Your task to perform on an android device: change your default location settings in chrome Image 0: 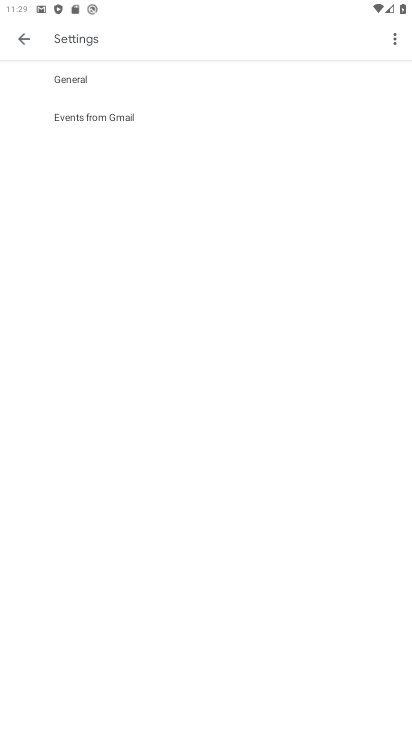
Step 0: press home button
Your task to perform on an android device: change your default location settings in chrome Image 1: 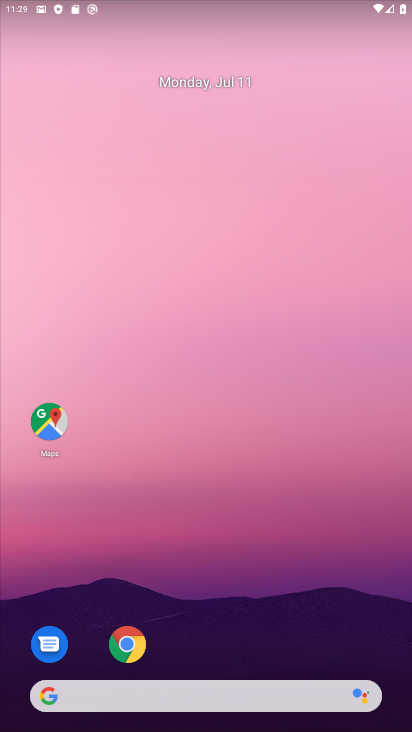
Step 1: drag from (190, 682) to (178, 6)
Your task to perform on an android device: change your default location settings in chrome Image 2: 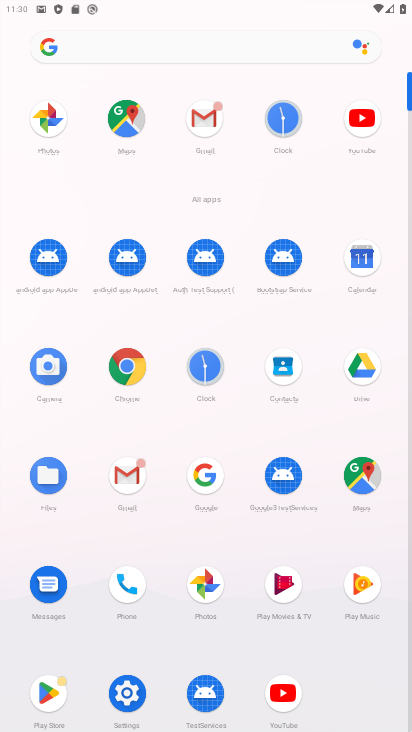
Step 2: click (139, 685)
Your task to perform on an android device: change your default location settings in chrome Image 3: 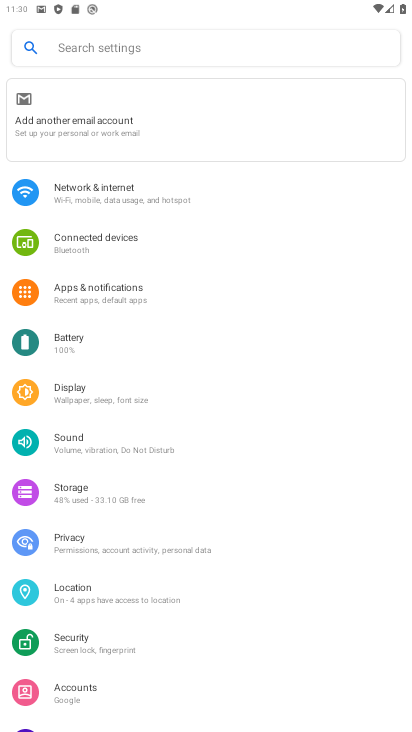
Step 3: press home button
Your task to perform on an android device: change your default location settings in chrome Image 4: 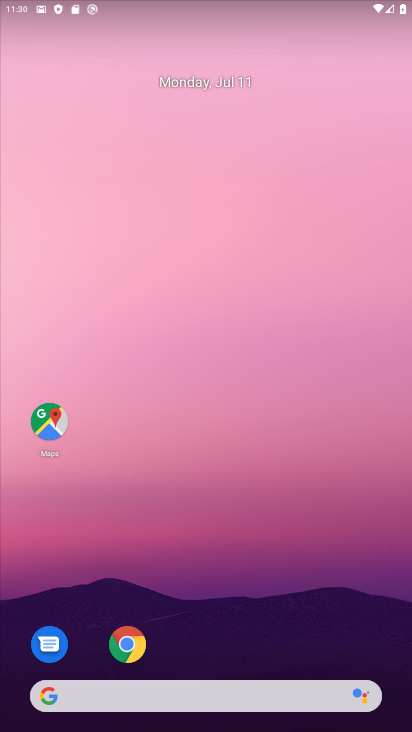
Step 4: click (132, 659)
Your task to perform on an android device: change your default location settings in chrome Image 5: 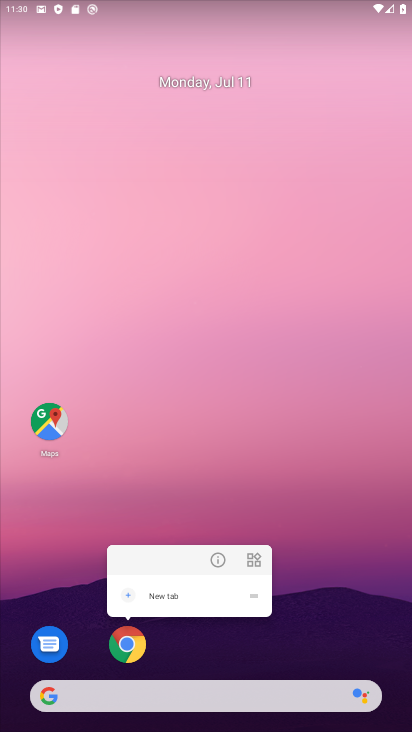
Step 5: click (248, 634)
Your task to perform on an android device: change your default location settings in chrome Image 6: 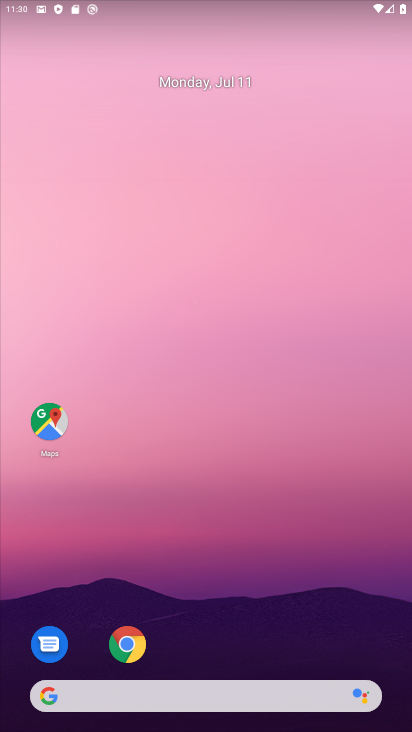
Step 6: click (133, 644)
Your task to perform on an android device: change your default location settings in chrome Image 7: 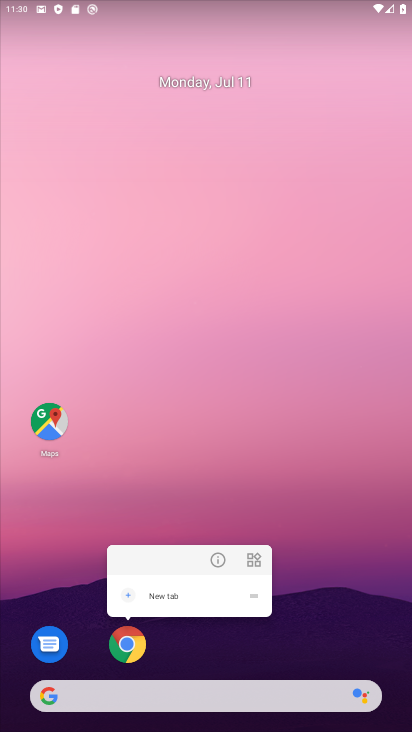
Step 7: click (113, 658)
Your task to perform on an android device: change your default location settings in chrome Image 8: 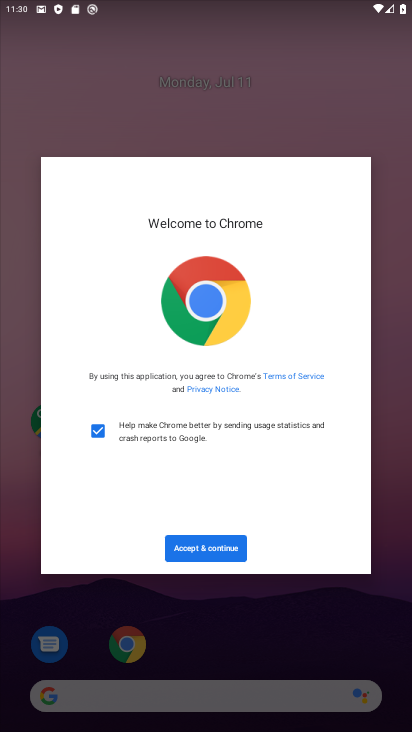
Step 8: click (220, 544)
Your task to perform on an android device: change your default location settings in chrome Image 9: 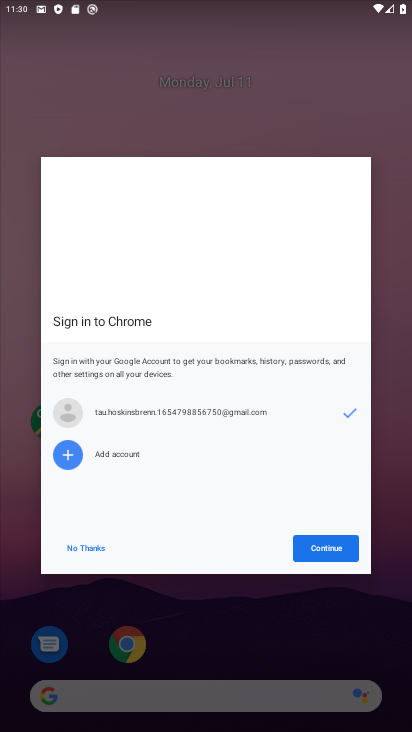
Step 9: click (323, 554)
Your task to perform on an android device: change your default location settings in chrome Image 10: 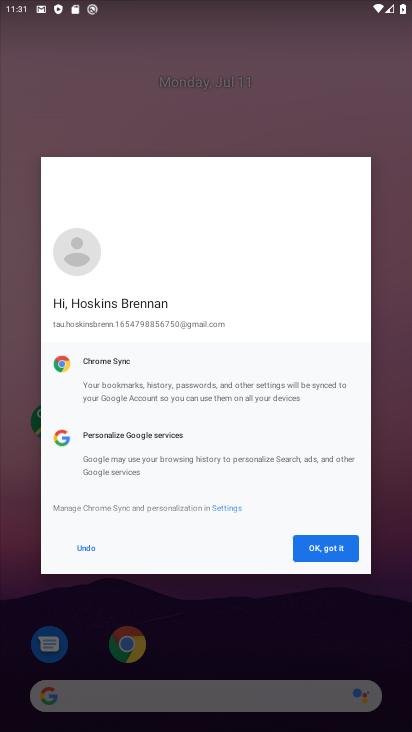
Step 10: click (325, 553)
Your task to perform on an android device: change your default location settings in chrome Image 11: 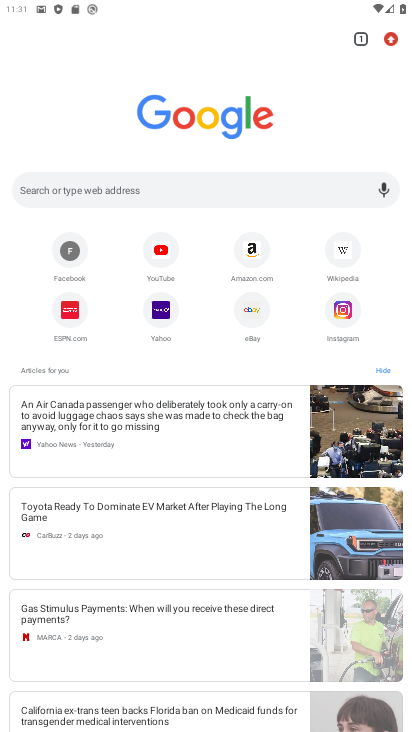
Step 11: click (389, 31)
Your task to perform on an android device: change your default location settings in chrome Image 12: 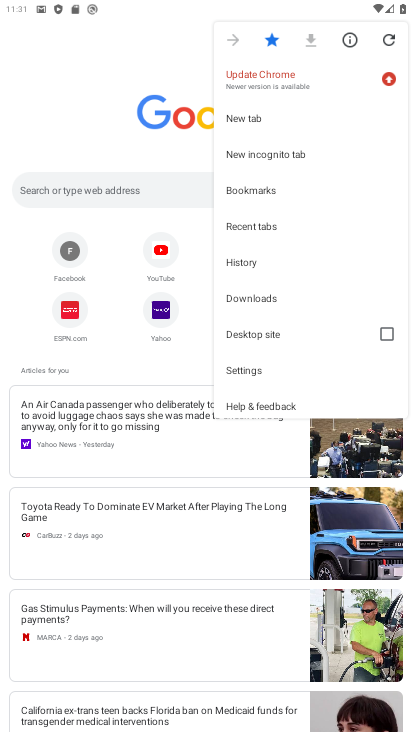
Step 12: click (242, 369)
Your task to perform on an android device: change your default location settings in chrome Image 13: 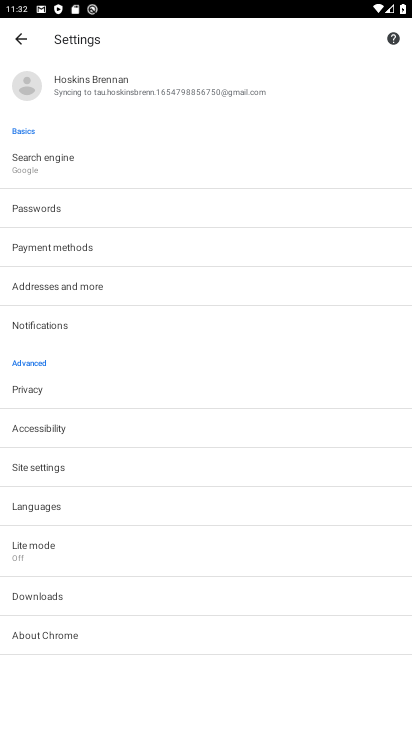
Step 13: click (55, 474)
Your task to perform on an android device: change your default location settings in chrome Image 14: 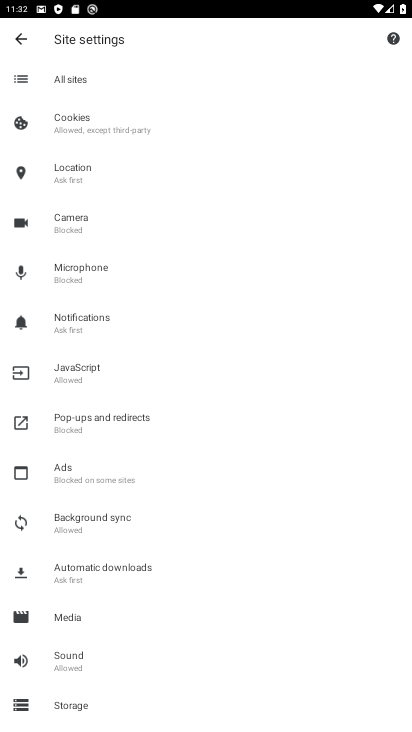
Step 14: click (63, 185)
Your task to perform on an android device: change your default location settings in chrome Image 15: 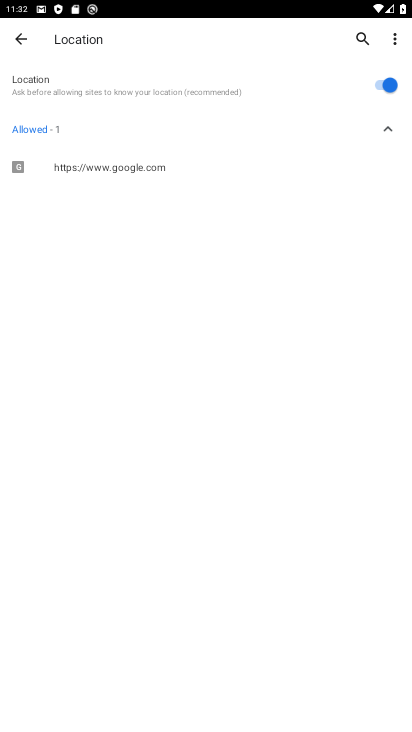
Step 15: click (377, 84)
Your task to perform on an android device: change your default location settings in chrome Image 16: 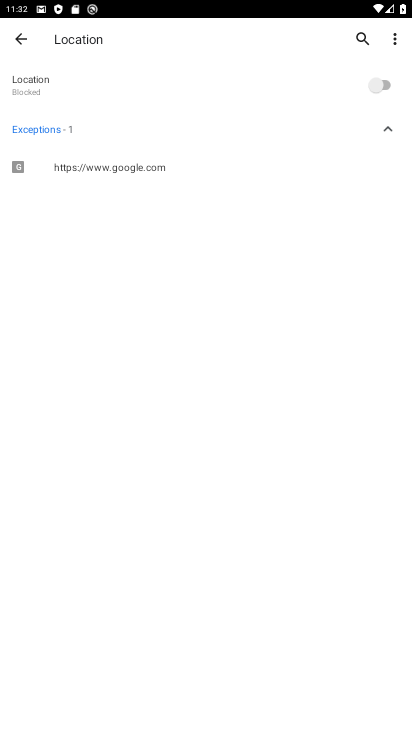
Step 16: task complete